Your task to perform on an android device: turn off data saver in the chrome app Image 0: 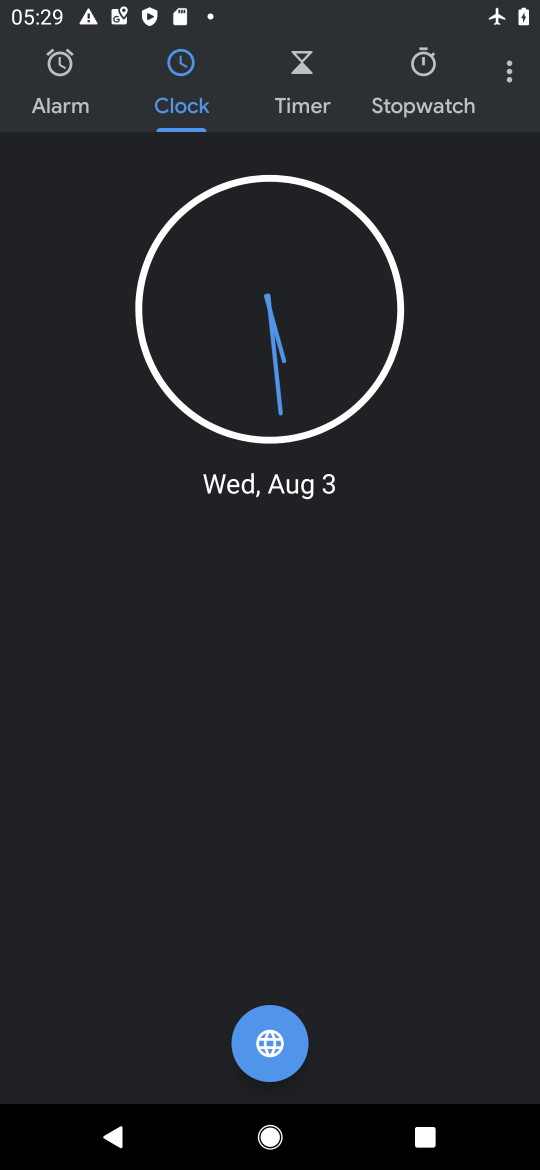
Step 0: press home button
Your task to perform on an android device: turn off data saver in the chrome app Image 1: 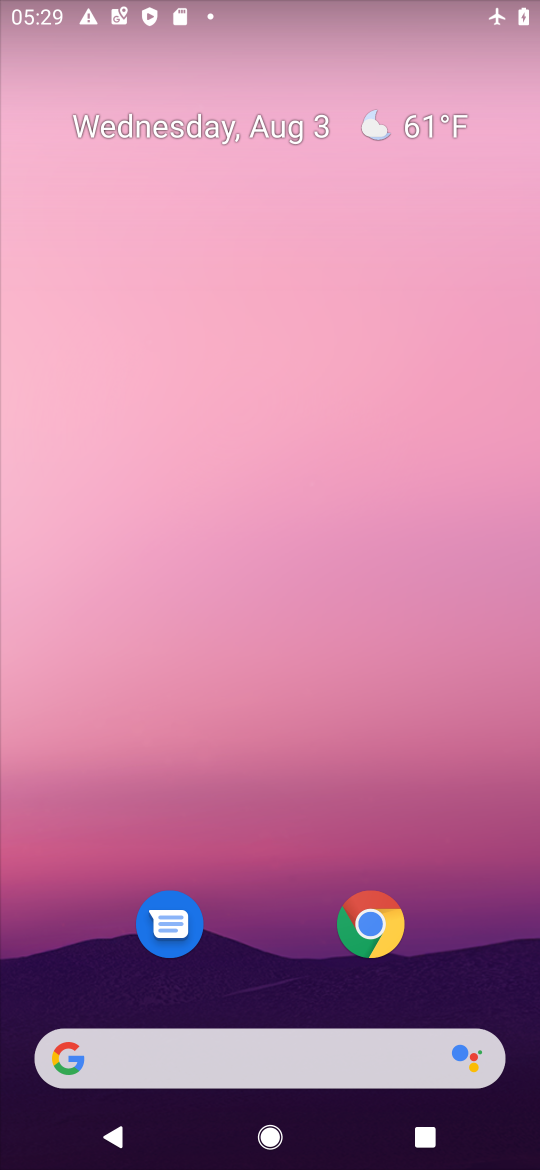
Step 1: click (365, 922)
Your task to perform on an android device: turn off data saver in the chrome app Image 2: 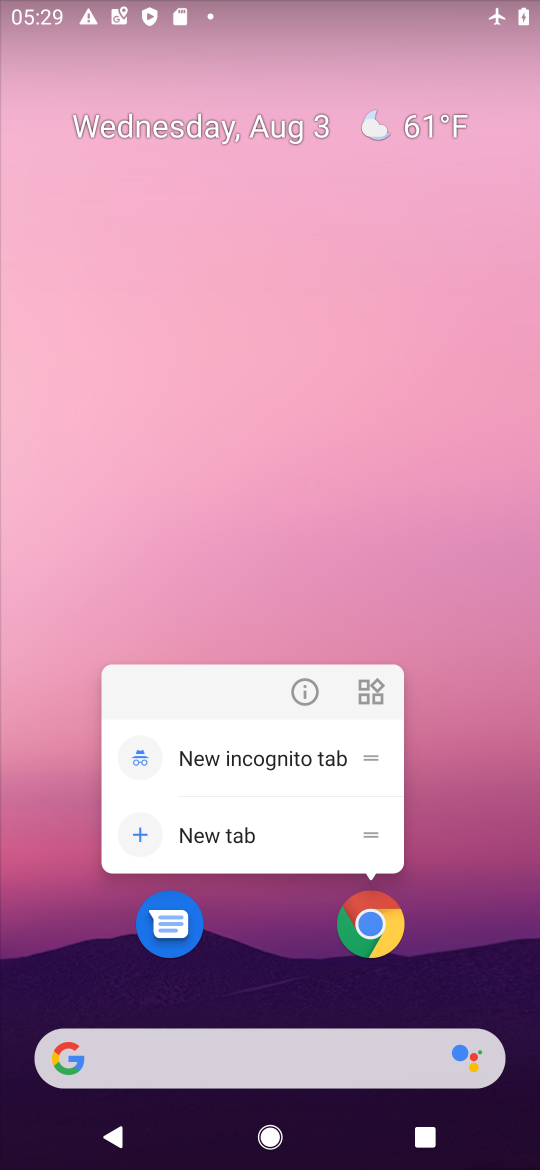
Step 2: click (365, 922)
Your task to perform on an android device: turn off data saver in the chrome app Image 3: 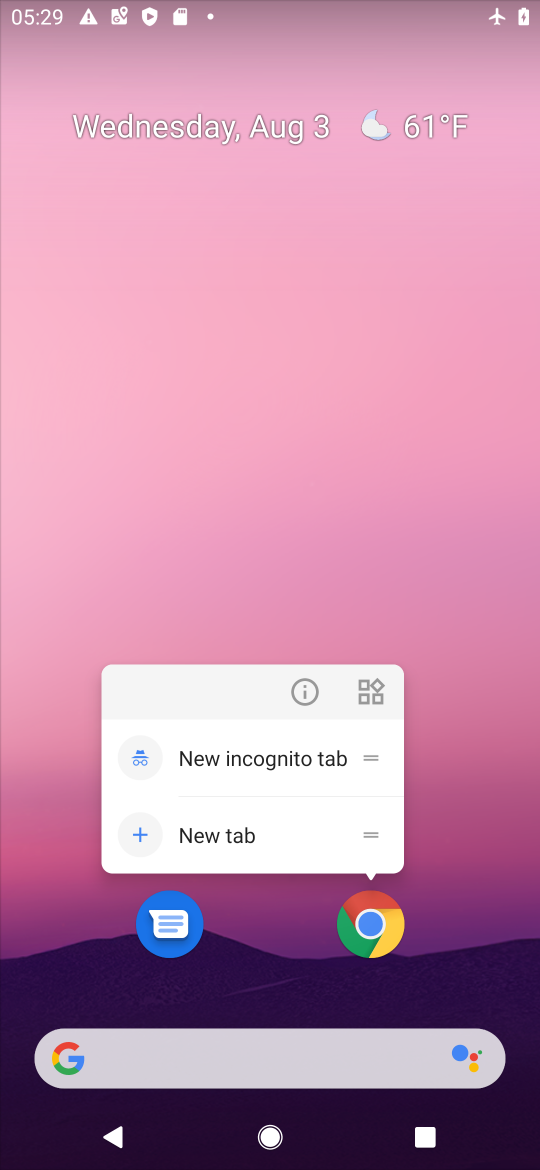
Step 3: click (365, 922)
Your task to perform on an android device: turn off data saver in the chrome app Image 4: 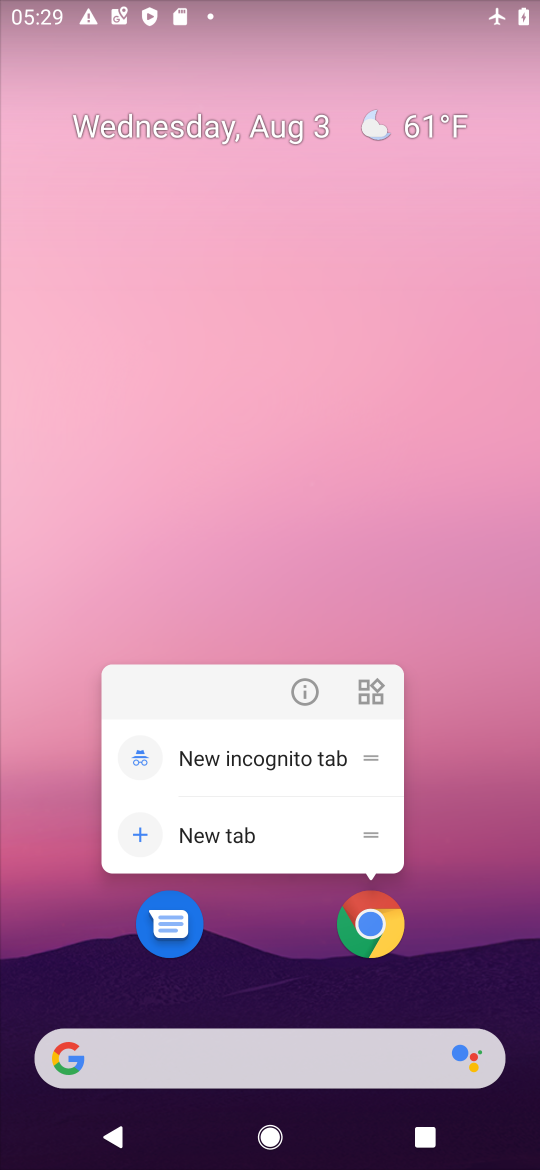
Step 4: click (365, 922)
Your task to perform on an android device: turn off data saver in the chrome app Image 5: 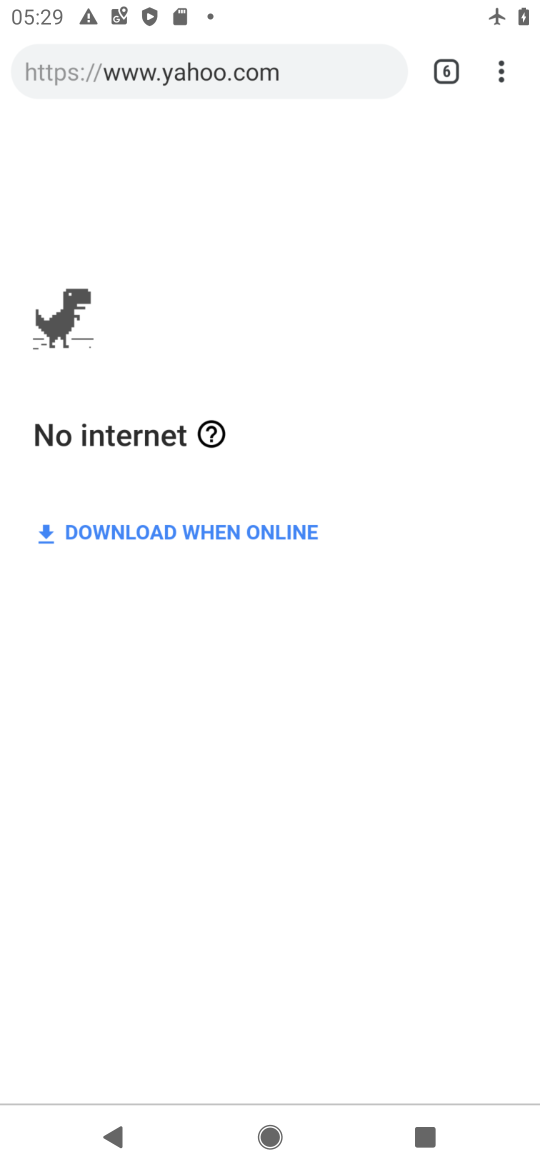
Step 5: click (369, 934)
Your task to perform on an android device: turn off data saver in the chrome app Image 6: 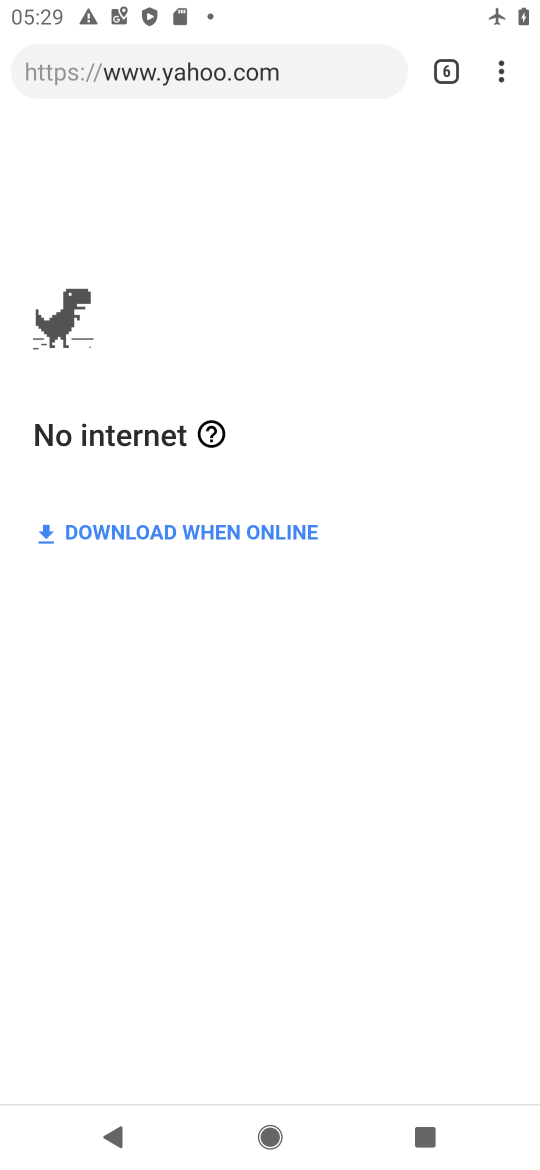
Step 6: click (502, 54)
Your task to perform on an android device: turn off data saver in the chrome app Image 7: 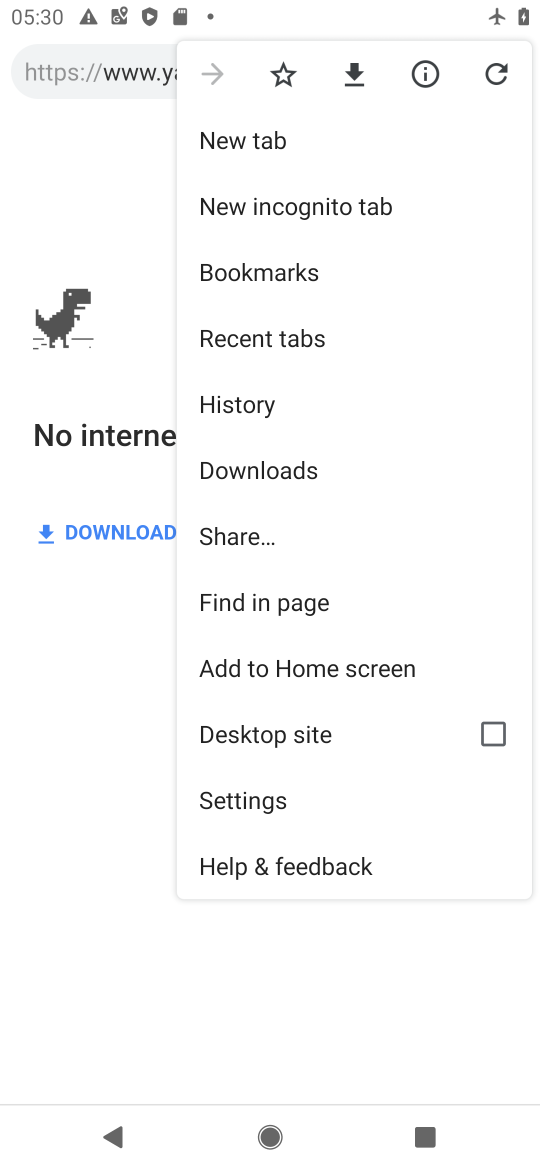
Step 7: click (312, 783)
Your task to perform on an android device: turn off data saver in the chrome app Image 8: 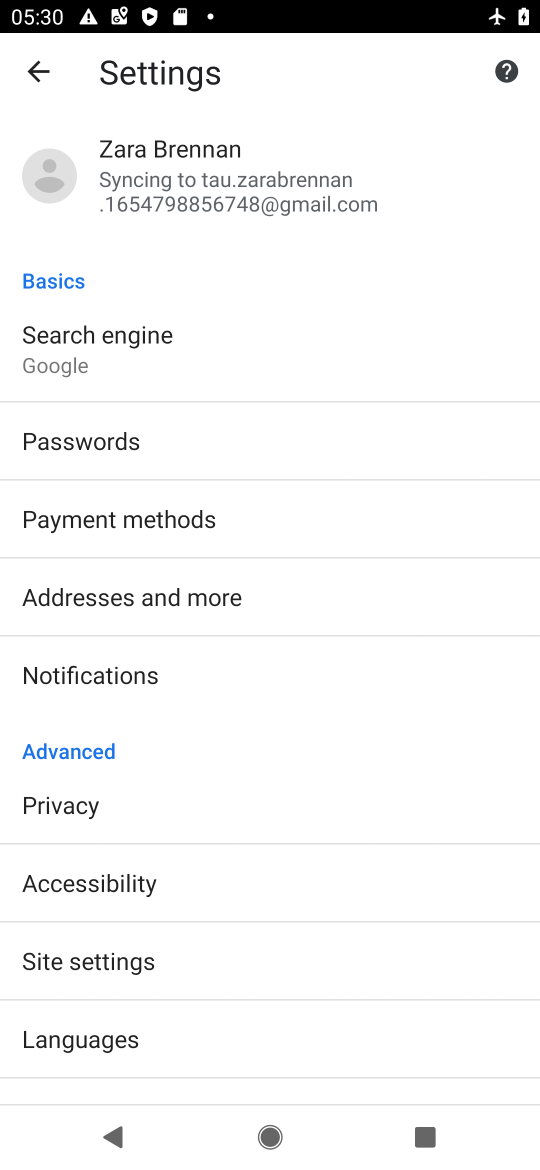
Step 8: drag from (214, 1019) to (214, 572)
Your task to perform on an android device: turn off data saver in the chrome app Image 9: 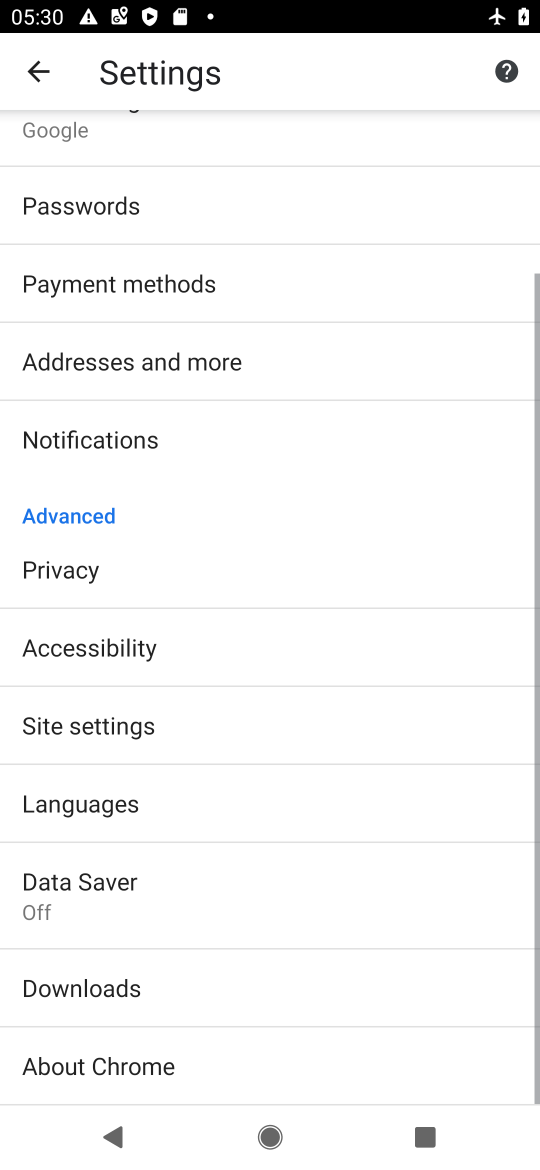
Step 9: click (174, 870)
Your task to perform on an android device: turn off data saver in the chrome app Image 10: 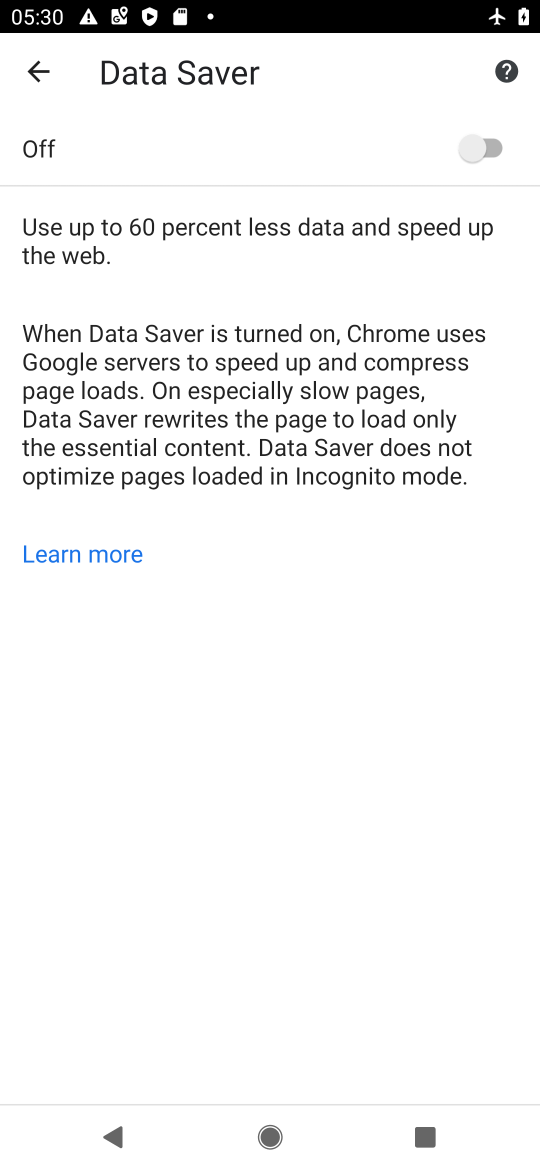
Step 10: task complete